Your task to perform on an android device: turn off sleep mode Image 0: 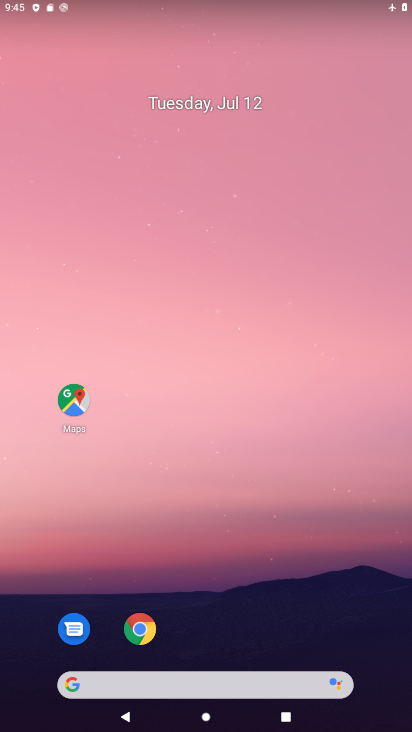
Step 0: drag from (192, 655) to (305, 0)
Your task to perform on an android device: turn off sleep mode Image 1: 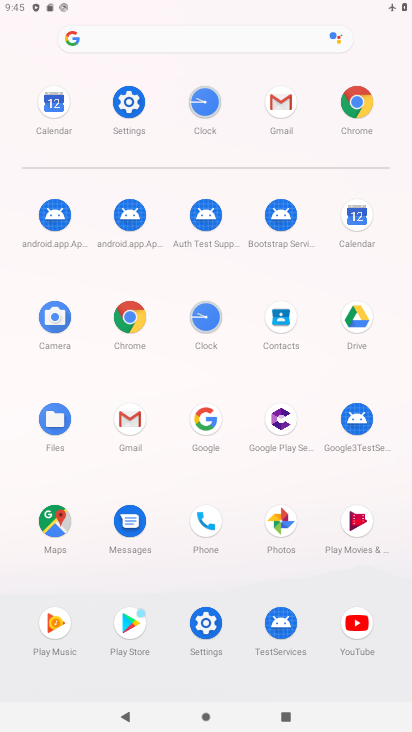
Step 1: click (130, 115)
Your task to perform on an android device: turn off sleep mode Image 2: 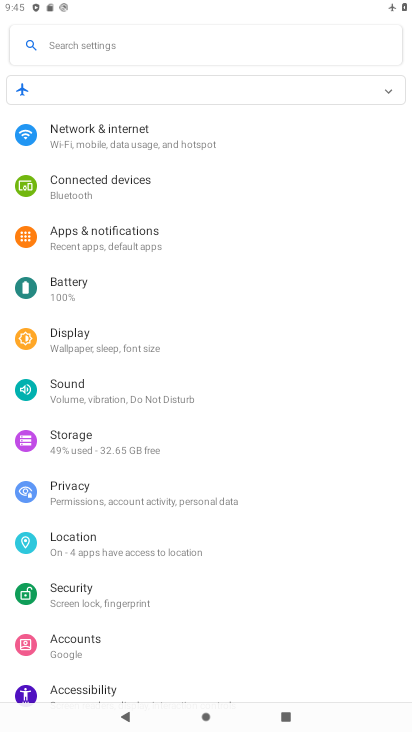
Step 2: click (114, 345)
Your task to perform on an android device: turn off sleep mode Image 3: 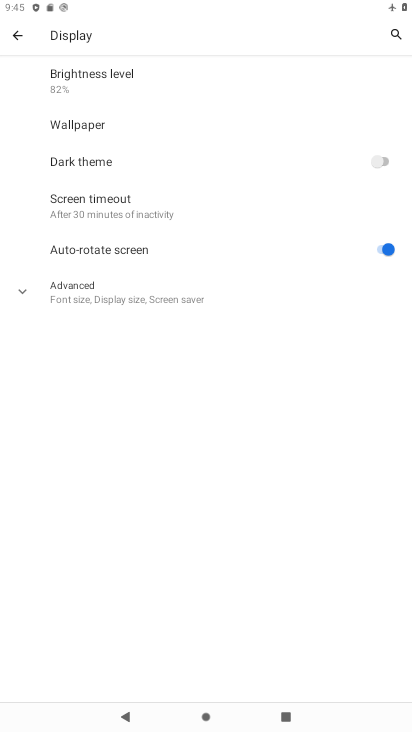
Step 3: task complete